Your task to perform on an android device: Open calendar and show me the fourth week of next month Image 0: 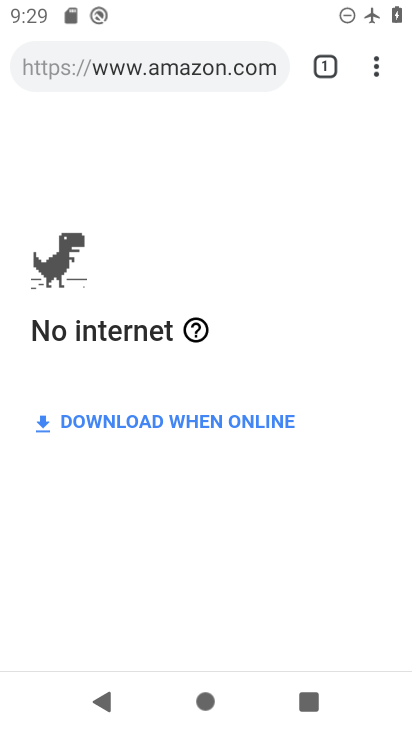
Step 0: press home button
Your task to perform on an android device: Open calendar and show me the fourth week of next month Image 1: 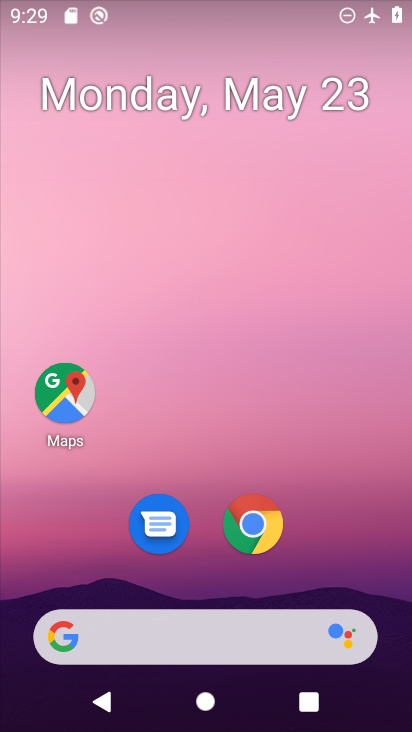
Step 1: drag from (231, 460) to (203, 37)
Your task to perform on an android device: Open calendar and show me the fourth week of next month Image 2: 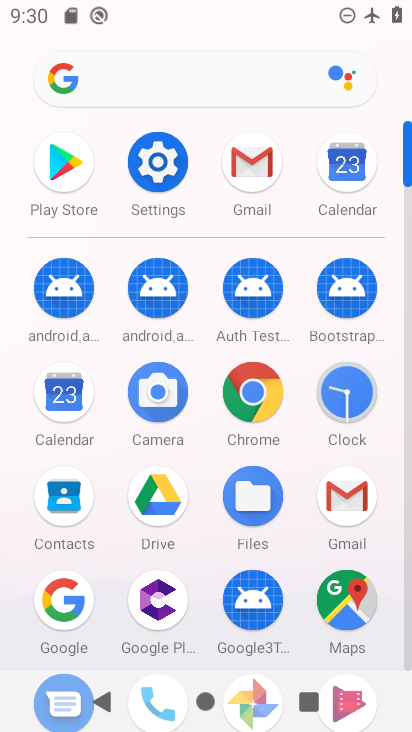
Step 2: click (330, 166)
Your task to perform on an android device: Open calendar and show me the fourth week of next month Image 3: 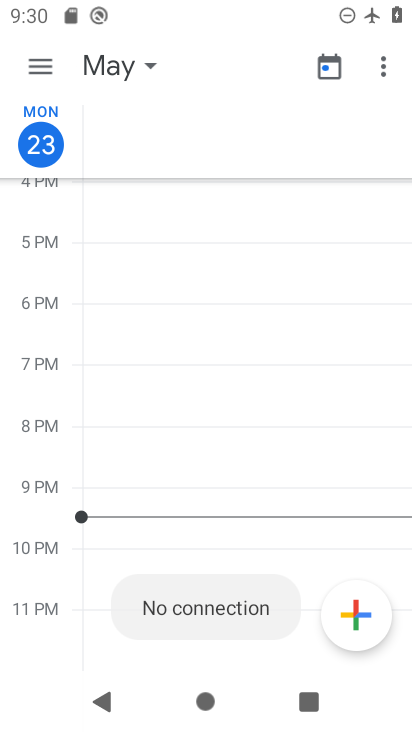
Step 3: click (47, 69)
Your task to perform on an android device: Open calendar and show me the fourth week of next month Image 4: 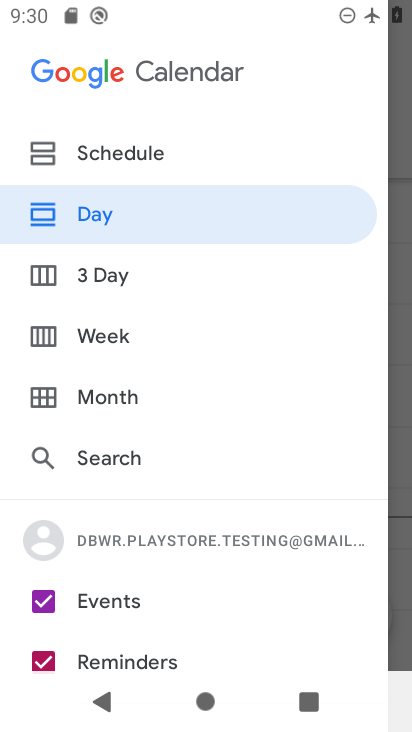
Step 4: click (62, 397)
Your task to perform on an android device: Open calendar and show me the fourth week of next month Image 5: 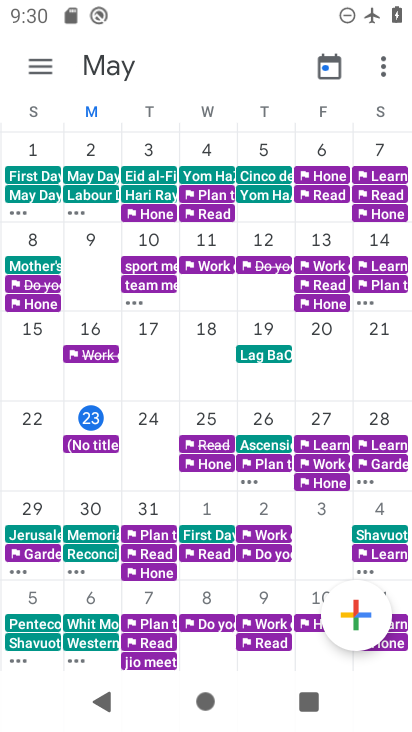
Step 5: drag from (361, 385) to (1, 362)
Your task to perform on an android device: Open calendar and show me the fourth week of next month Image 6: 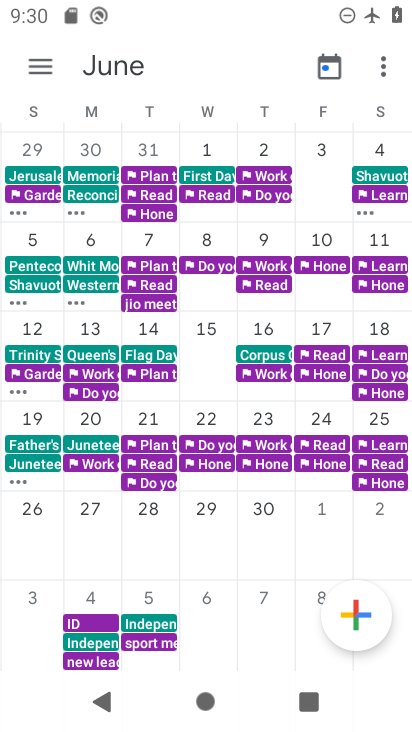
Step 6: click (32, 505)
Your task to perform on an android device: Open calendar and show me the fourth week of next month Image 7: 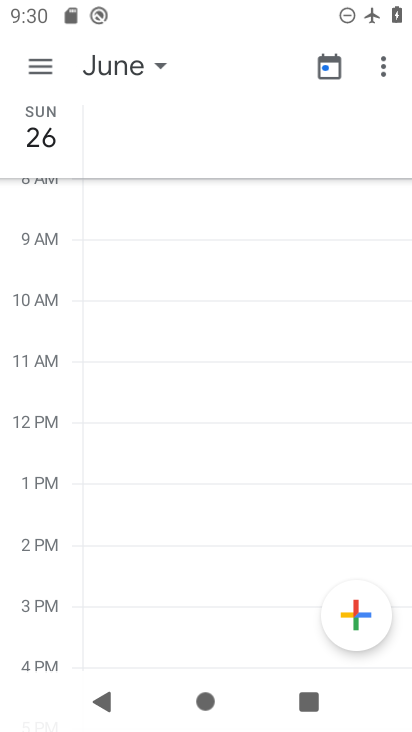
Step 7: click (47, 66)
Your task to perform on an android device: Open calendar and show me the fourth week of next month Image 8: 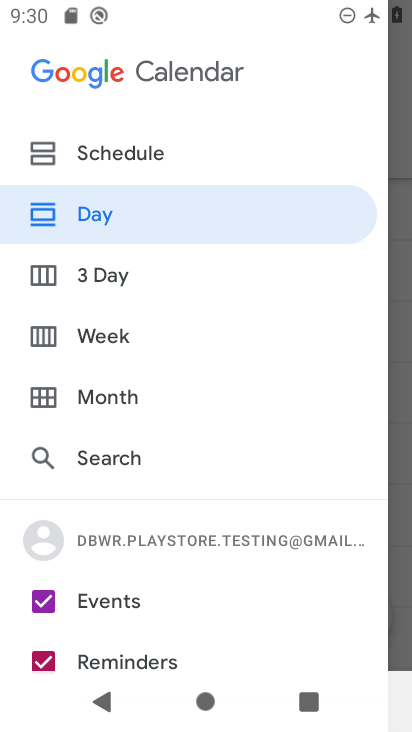
Step 8: click (118, 333)
Your task to perform on an android device: Open calendar and show me the fourth week of next month Image 9: 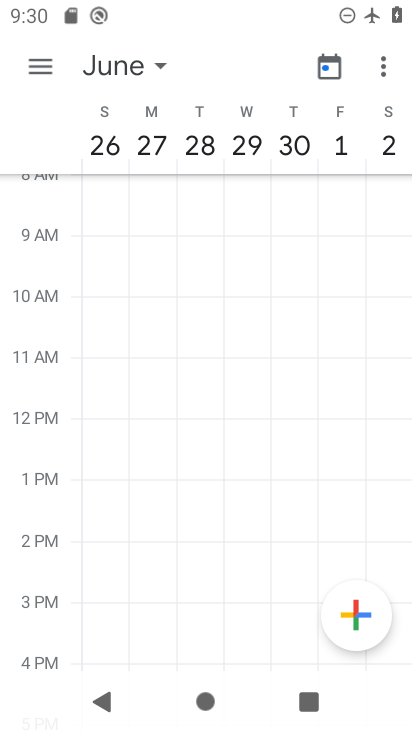
Step 9: task complete